Your task to perform on an android device: toggle location history Image 0: 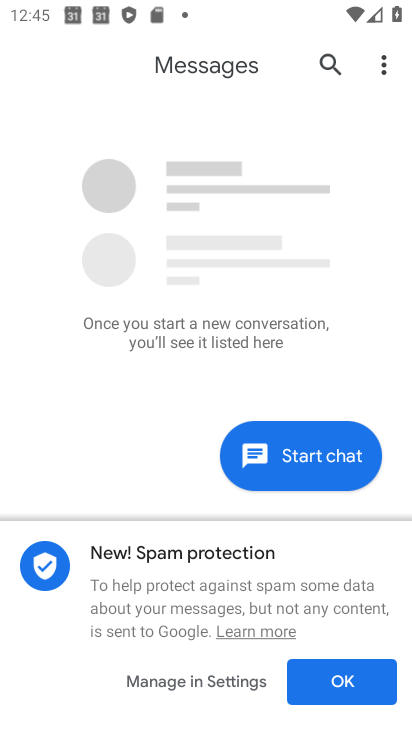
Step 0: press home button
Your task to perform on an android device: toggle location history Image 1: 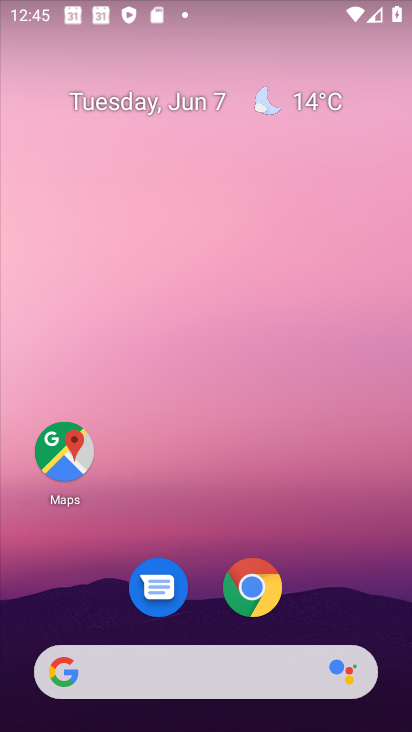
Step 1: drag from (195, 586) to (266, 220)
Your task to perform on an android device: toggle location history Image 2: 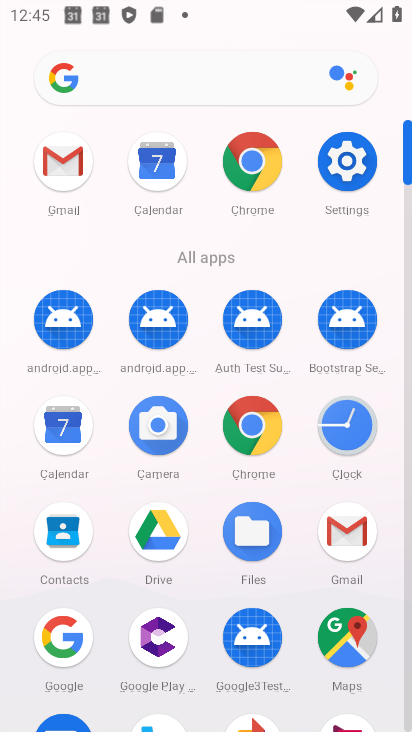
Step 2: click (354, 180)
Your task to perform on an android device: toggle location history Image 3: 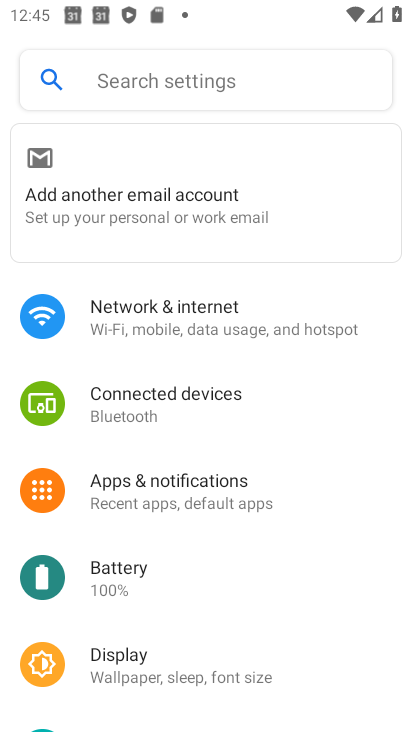
Step 3: drag from (211, 556) to (249, 174)
Your task to perform on an android device: toggle location history Image 4: 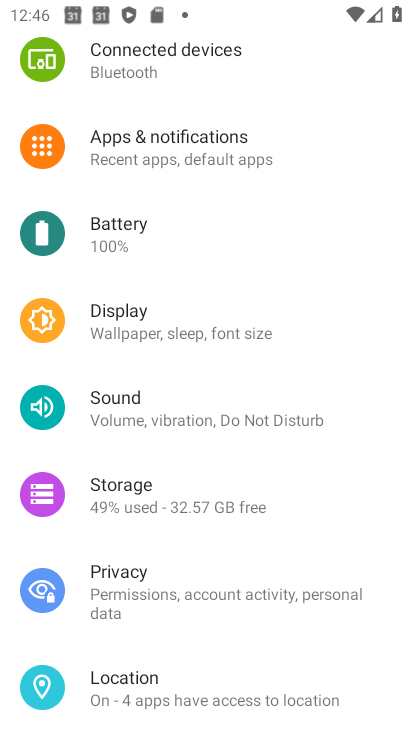
Step 4: click (226, 685)
Your task to perform on an android device: toggle location history Image 5: 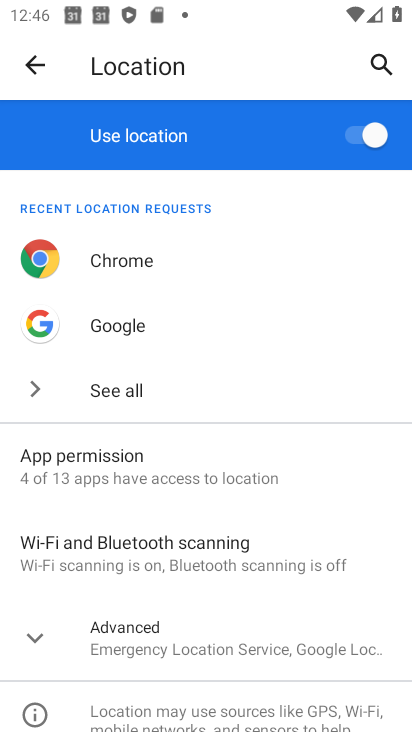
Step 5: click (139, 638)
Your task to perform on an android device: toggle location history Image 6: 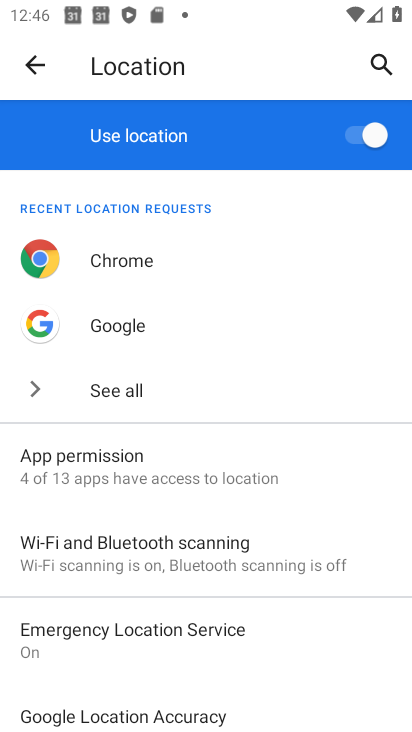
Step 6: drag from (194, 633) to (192, 312)
Your task to perform on an android device: toggle location history Image 7: 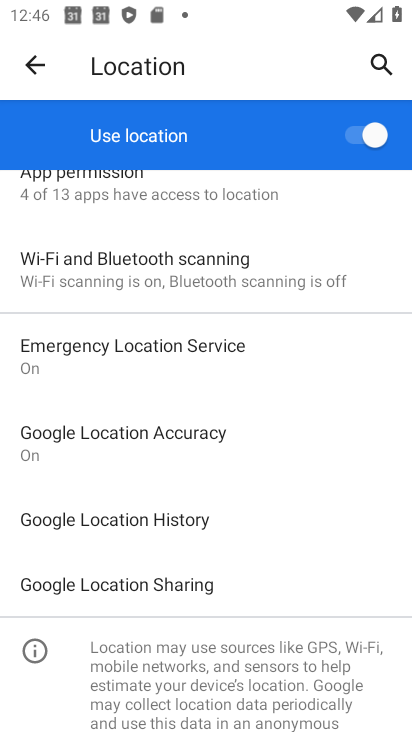
Step 7: click (219, 524)
Your task to perform on an android device: toggle location history Image 8: 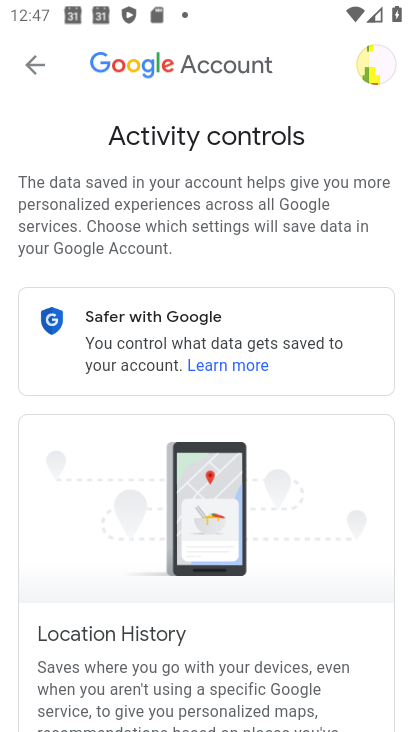
Step 8: drag from (164, 647) to (131, 291)
Your task to perform on an android device: toggle location history Image 9: 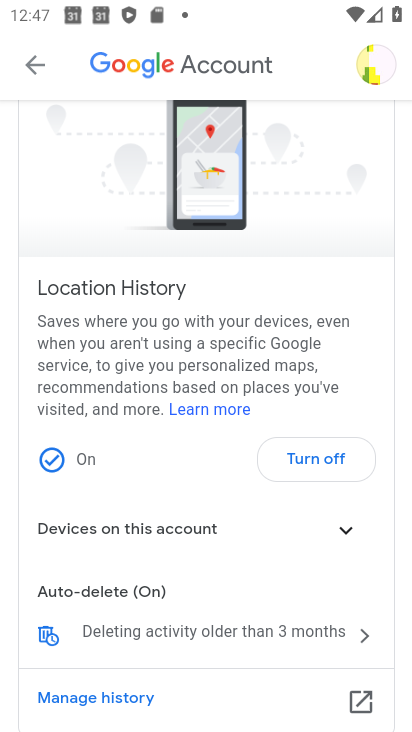
Step 9: click (324, 452)
Your task to perform on an android device: toggle location history Image 10: 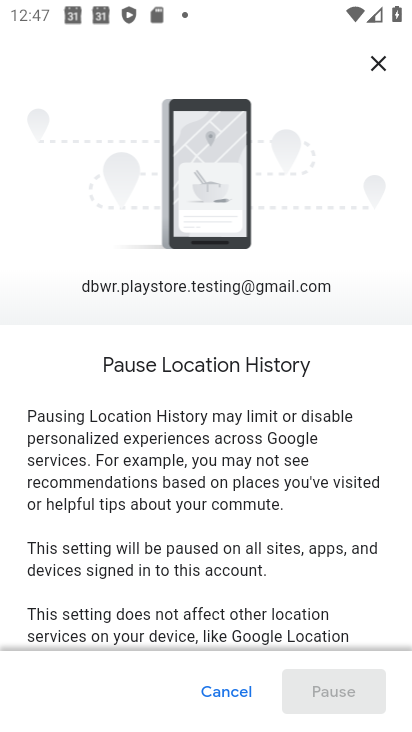
Step 10: drag from (322, 504) to (332, 0)
Your task to perform on an android device: toggle location history Image 11: 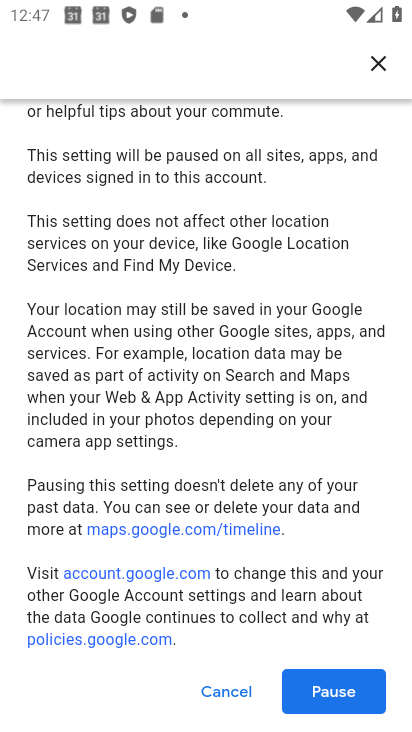
Step 11: click (351, 697)
Your task to perform on an android device: toggle location history Image 12: 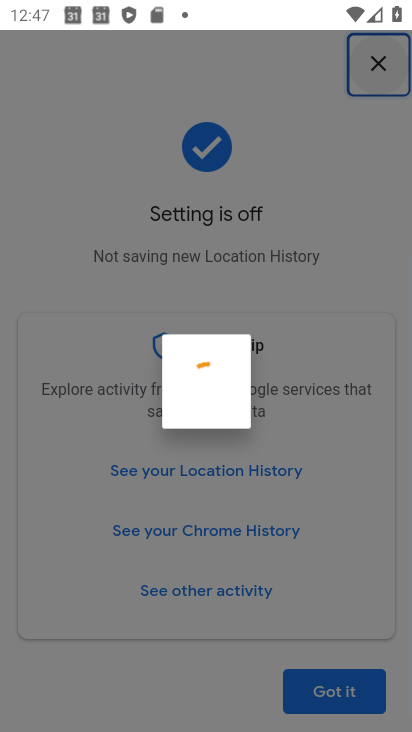
Step 12: click (352, 691)
Your task to perform on an android device: toggle location history Image 13: 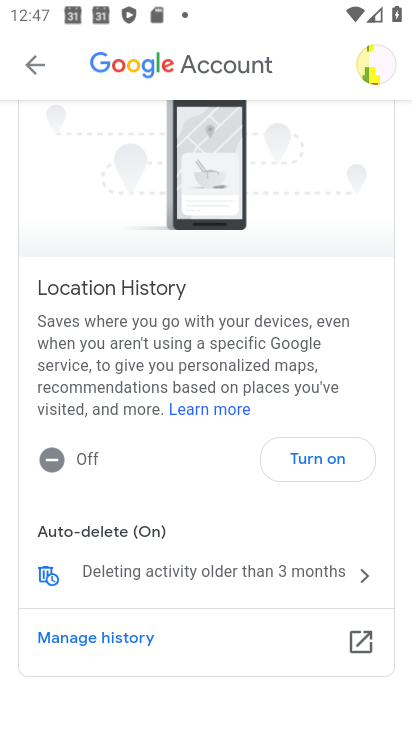
Step 13: task complete